Your task to perform on an android device: Open the calendar and show me this week's events? Image 0: 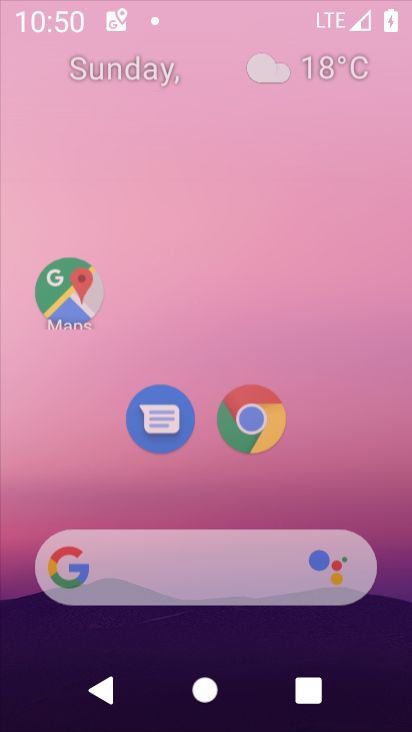
Step 0: press home button
Your task to perform on an android device: Open the calendar and show me this week's events? Image 1: 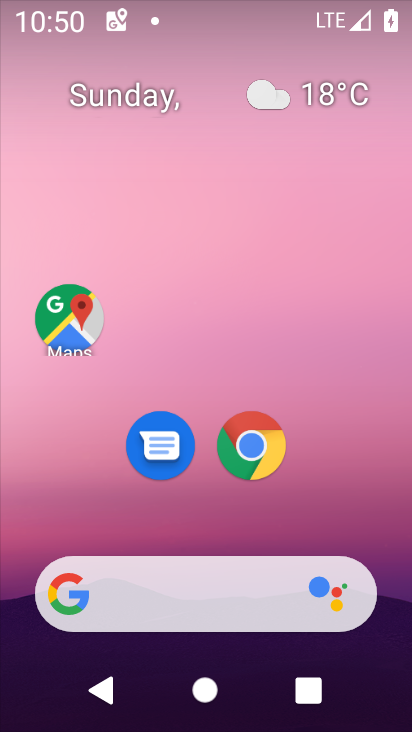
Step 1: drag from (203, 527) to (247, 71)
Your task to perform on an android device: Open the calendar and show me this week's events? Image 2: 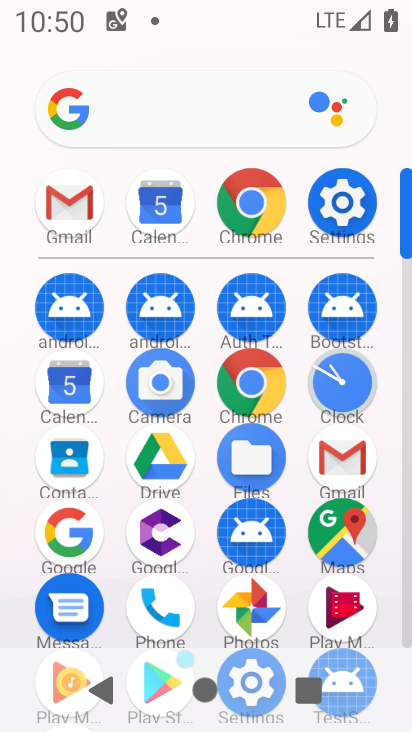
Step 2: click (69, 376)
Your task to perform on an android device: Open the calendar and show me this week's events? Image 3: 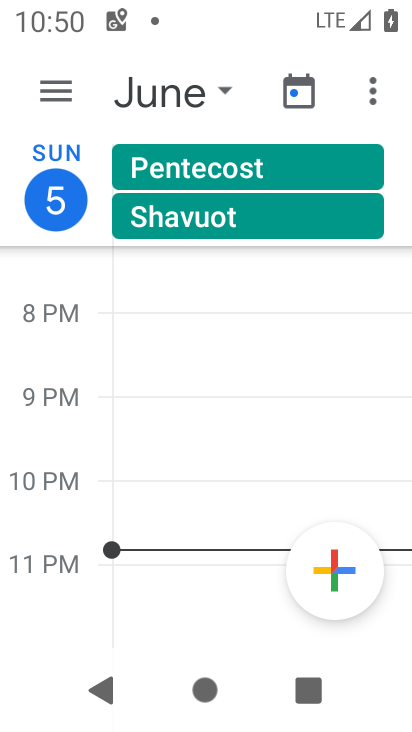
Step 3: click (66, 91)
Your task to perform on an android device: Open the calendar and show me this week's events? Image 4: 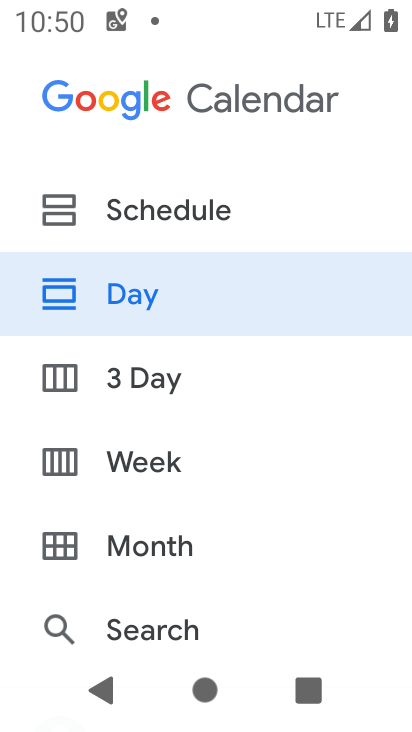
Step 4: click (97, 464)
Your task to perform on an android device: Open the calendar and show me this week's events? Image 5: 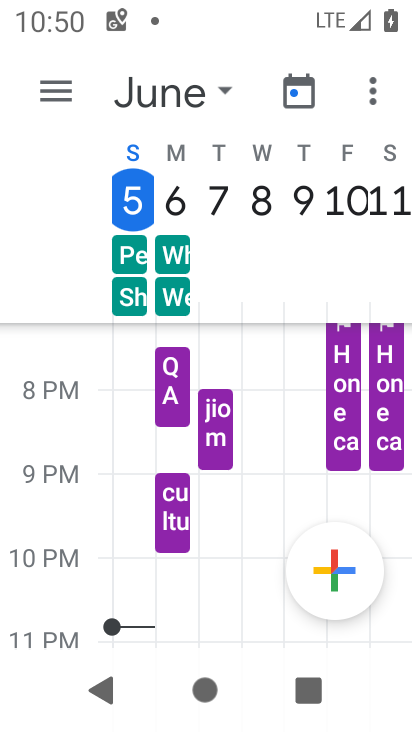
Step 5: click (131, 195)
Your task to perform on an android device: Open the calendar and show me this week's events? Image 6: 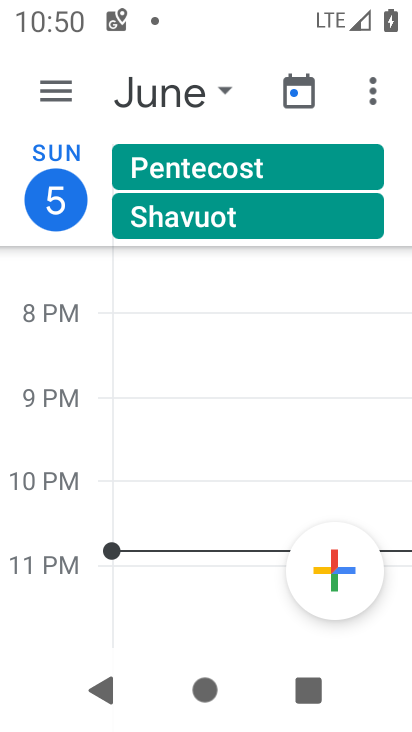
Step 6: click (80, 214)
Your task to perform on an android device: Open the calendar and show me this week's events? Image 7: 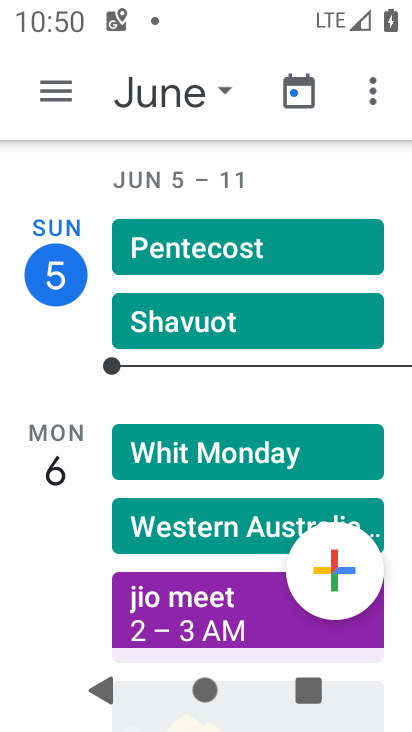
Step 7: drag from (81, 547) to (127, 89)
Your task to perform on an android device: Open the calendar and show me this week's events? Image 8: 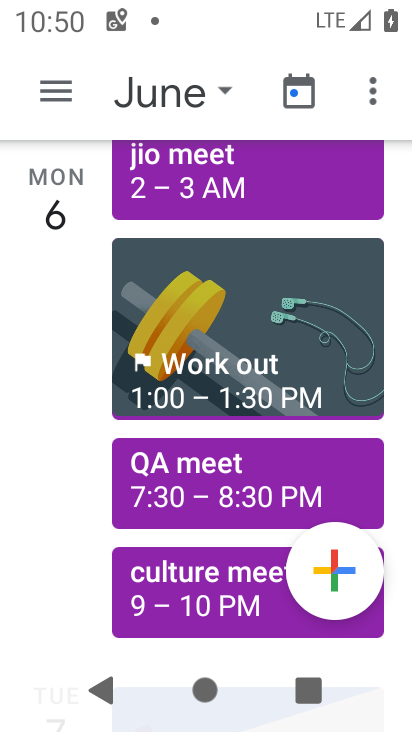
Step 8: drag from (85, 568) to (84, 131)
Your task to perform on an android device: Open the calendar and show me this week's events? Image 9: 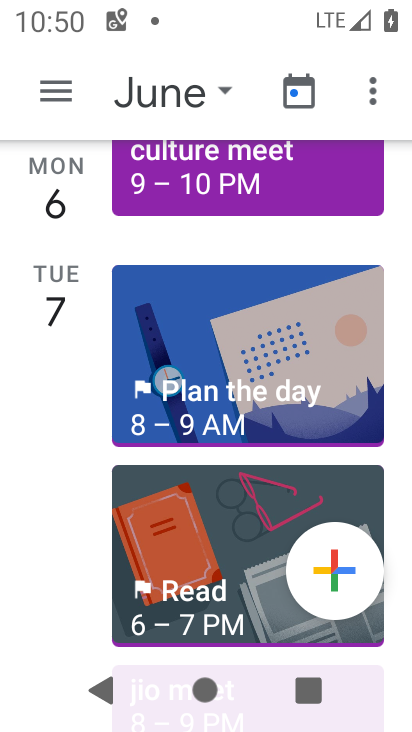
Step 9: click (56, 94)
Your task to perform on an android device: Open the calendar and show me this week's events? Image 10: 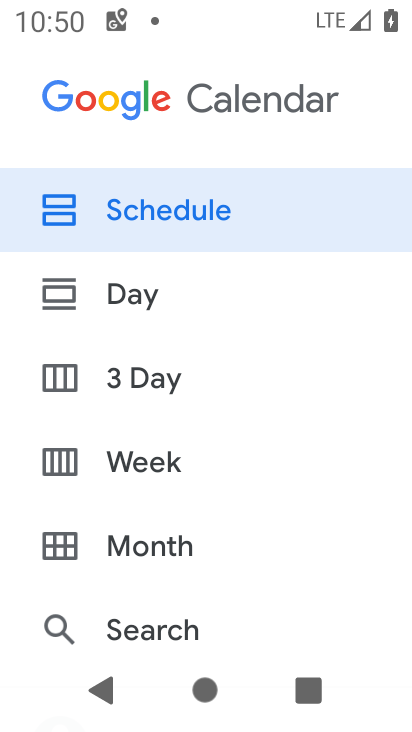
Step 10: drag from (61, 592) to (79, 102)
Your task to perform on an android device: Open the calendar and show me this week's events? Image 11: 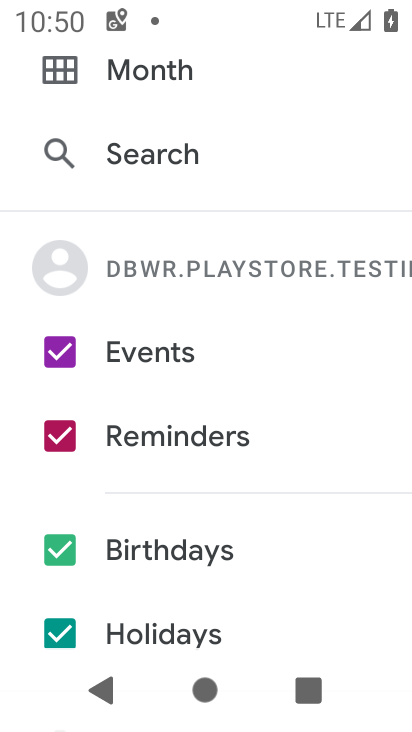
Step 11: click (64, 425)
Your task to perform on an android device: Open the calendar and show me this week's events? Image 12: 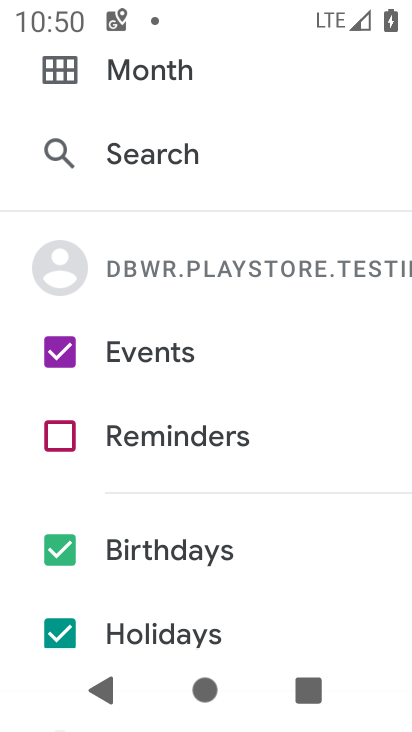
Step 12: click (61, 550)
Your task to perform on an android device: Open the calendar and show me this week's events? Image 13: 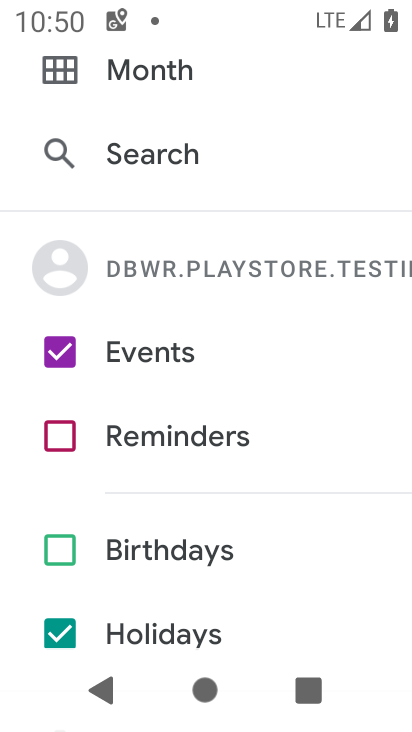
Step 13: click (59, 634)
Your task to perform on an android device: Open the calendar and show me this week's events? Image 14: 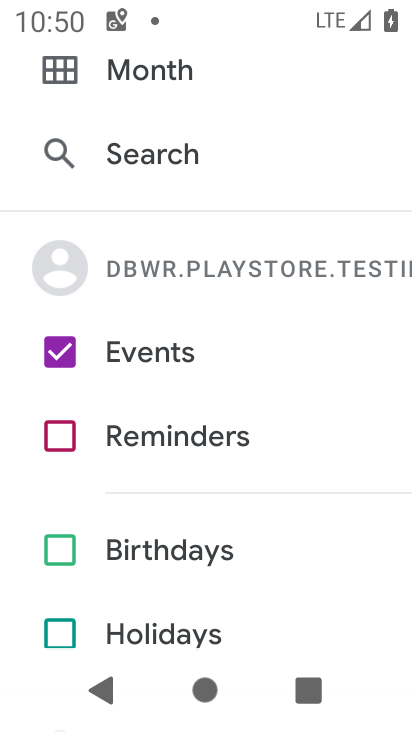
Step 14: drag from (132, 121) to (193, 602)
Your task to perform on an android device: Open the calendar and show me this week's events? Image 15: 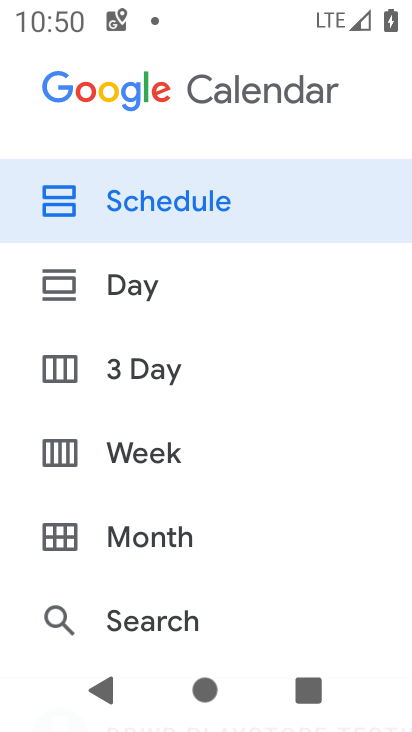
Step 15: click (154, 184)
Your task to perform on an android device: Open the calendar and show me this week's events? Image 16: 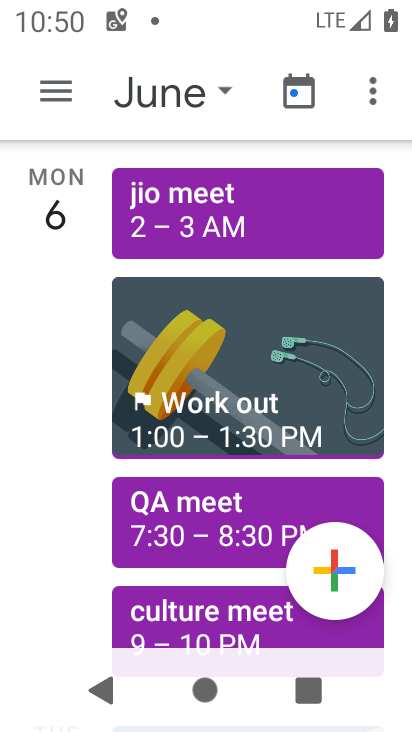
Step 16: task complete